Your task to perform on an android device: What's the weather today? Image 0: 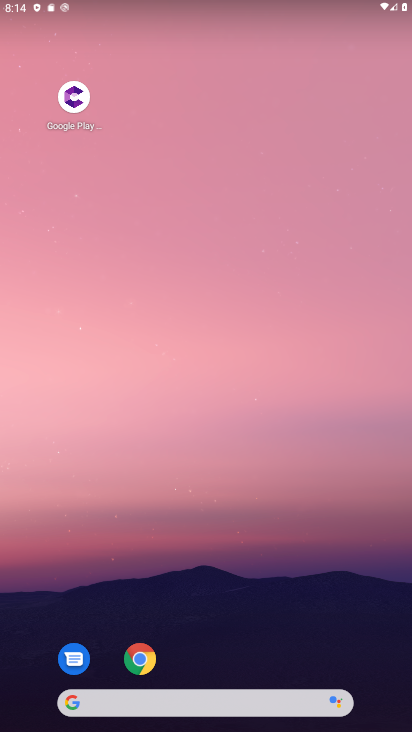
Step 0: click (188, 689)
Your task to perform on an android device: What's the weather today? Image 1: 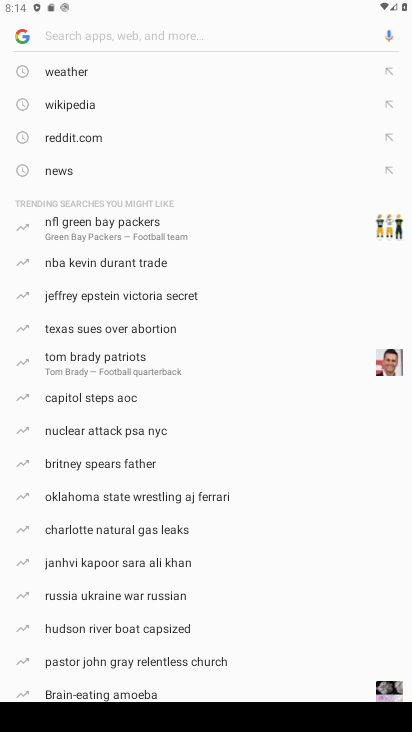
Step 1: click (76, 77)
Your task to perform on an android device: What's the weather today? Image 2: 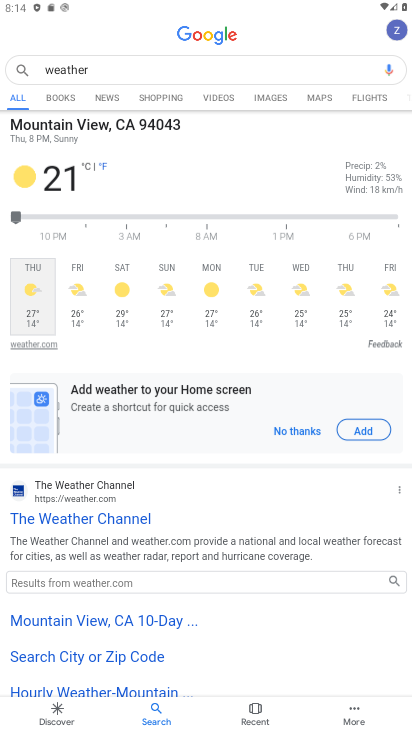
Step 2: click (46, 282)
Your task to perform on an android device: What's the weather today? Image 3: 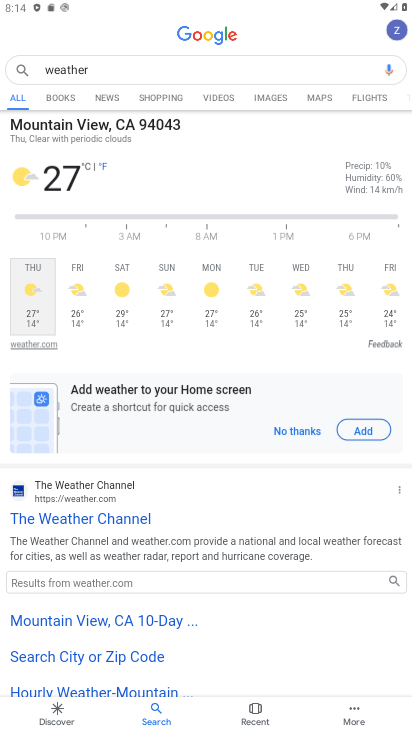
Step 3: task complete